Your task to perform on an android device: Open settings on Google Maps Image 0: 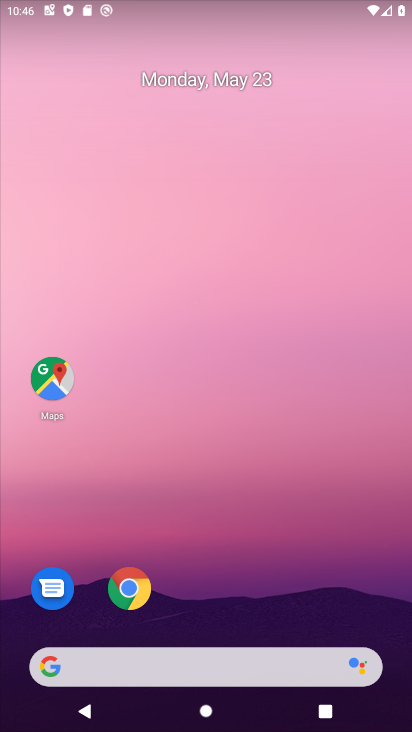
Step 0: drag from (289, 580) to (246, 202)
Your task to perform on an android device: Open settings on Google Maps Image 1: 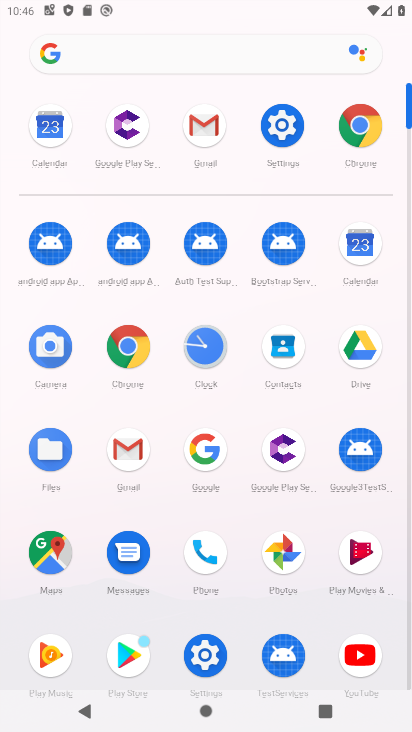
Step 1: click (39, 542)
Your task to perform on an android device: Open settings on Google Maps Image 2: 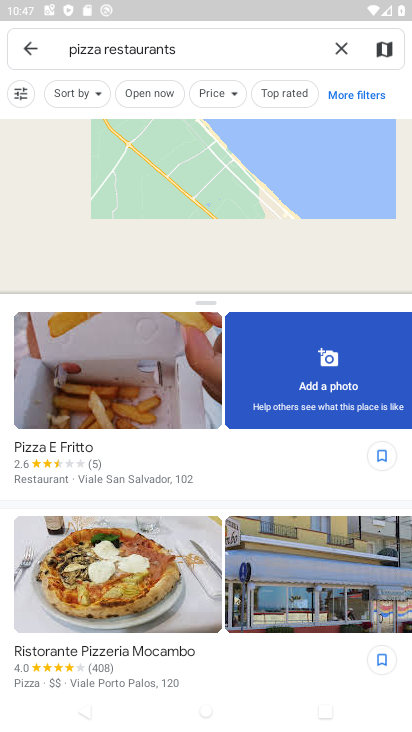
Step 2: click (23, 45)
Your task to perform on an android device: Open settings on Google Maps Image 3: 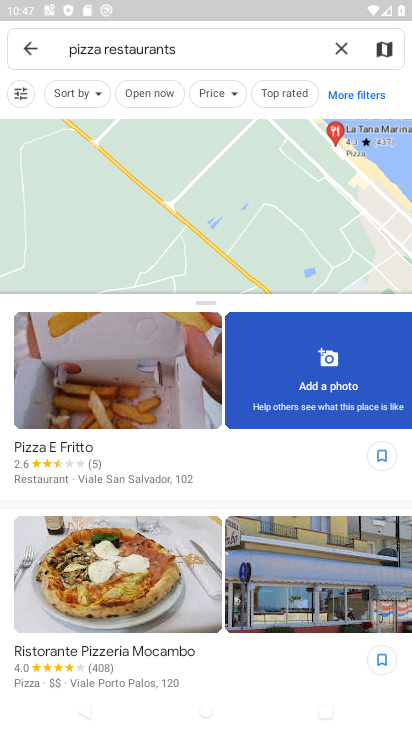
Step 3: click (25, 44)
Your task to perform on an android device: Open settings on Google Maps Image 4: 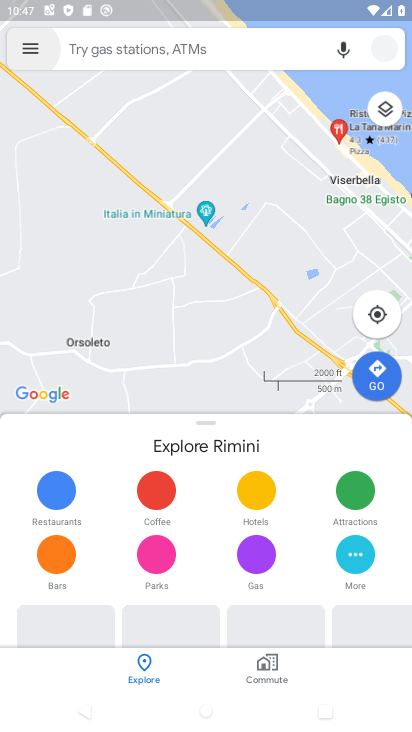
Step 4: click (25, 44)
Your task to perform on an android device: Open settings on Google Maps Image 5: 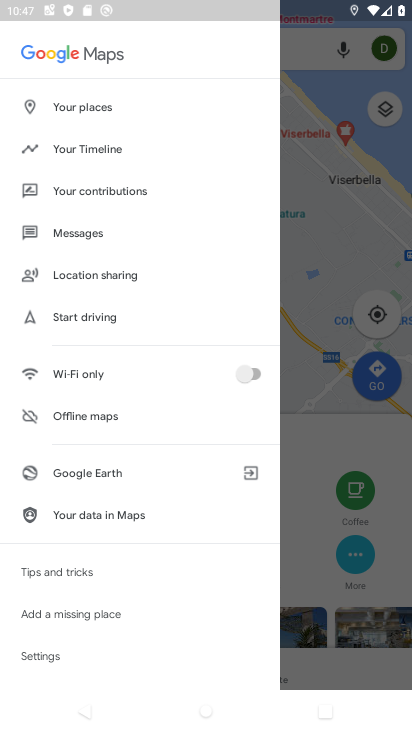
Step 5: click (48, 663)
Your task to perform on an android device: Open settings on Google Maps Image 6: 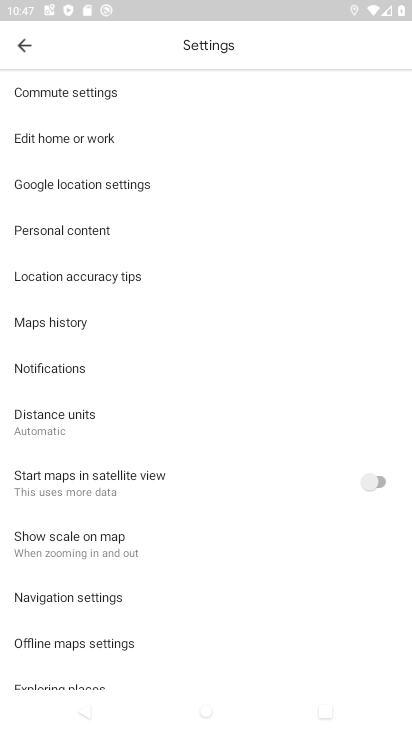
Step 6: task complete